Your task to perform on an android device: Go to Android settings Image 0: 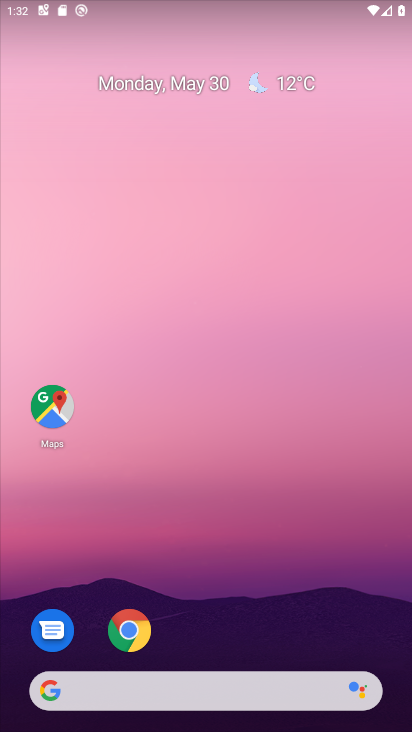
Step 0: drag from (278, 693) to (308, 72)
Your task to perform on an android device: Go to Android settings Image 1: 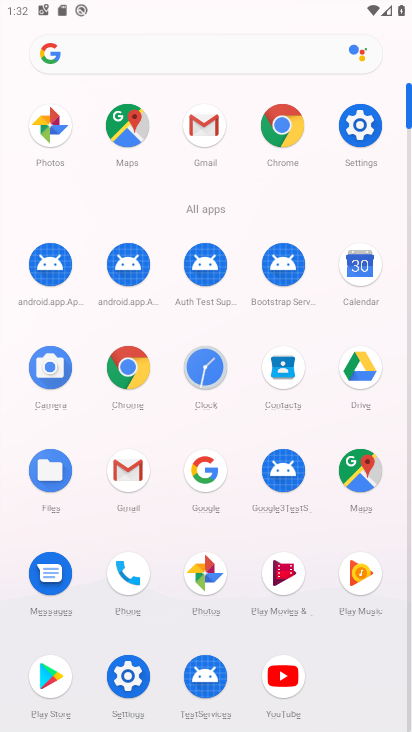
Step 1: click (345, 139)
Your task to perform on an android device: Go to Android settings Image 2: 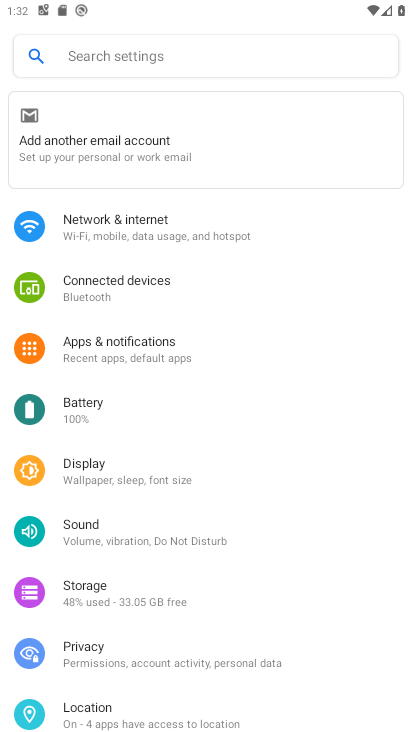
Step 2: task complete